Your task to perform on an android device: turn on bluetooth scan Image 0: 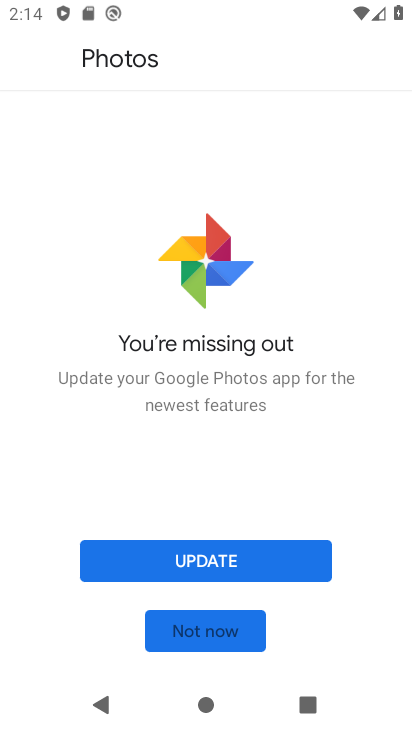
Step 0: press home button
Your task to perform on an android device: turn on bluetooth scan Image 1: 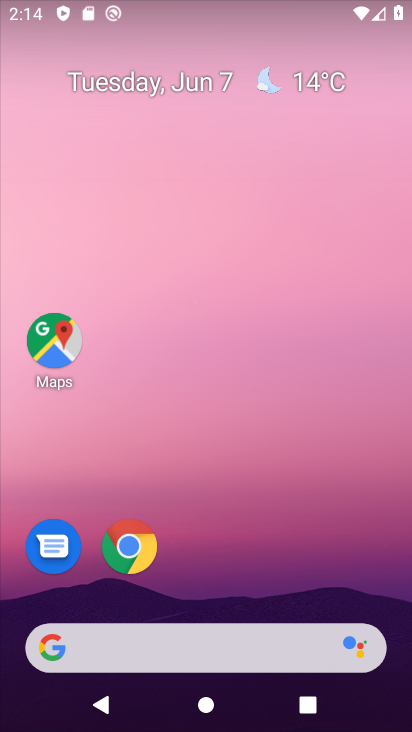
Step 1: drag from (157, 600) to (197, 0)
Your task to perform on an android device: turn on bluetooth scan Image 2: 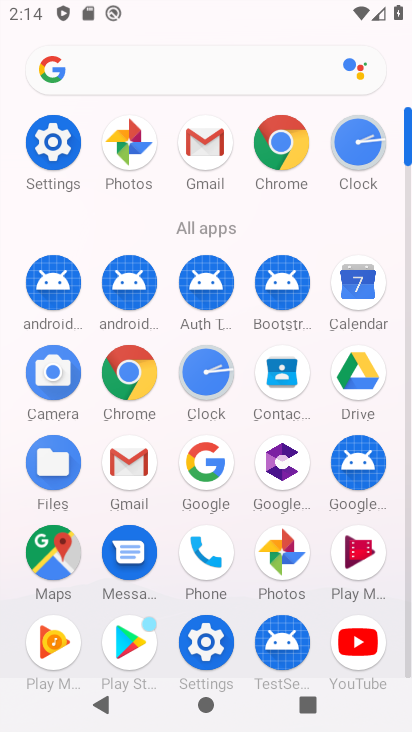
Step 2: click (55, 140)
Your task to perform on an android device: turn on bluetooth scan Image 3: 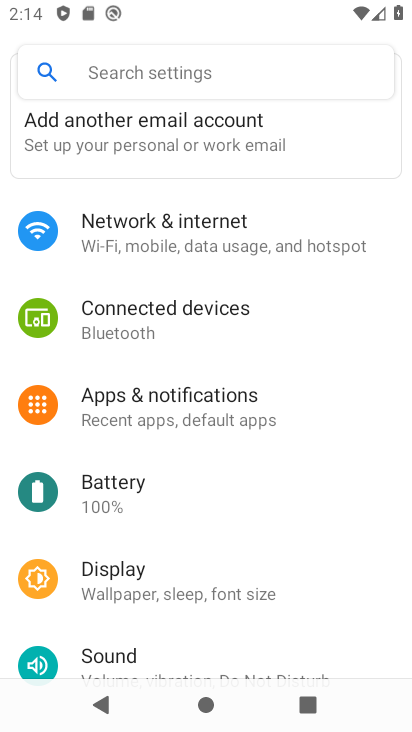
Step 3: drag from (171, 568) to (269, 74)
Your task to perform on an android device: turn on bluetooth scan Image 4: 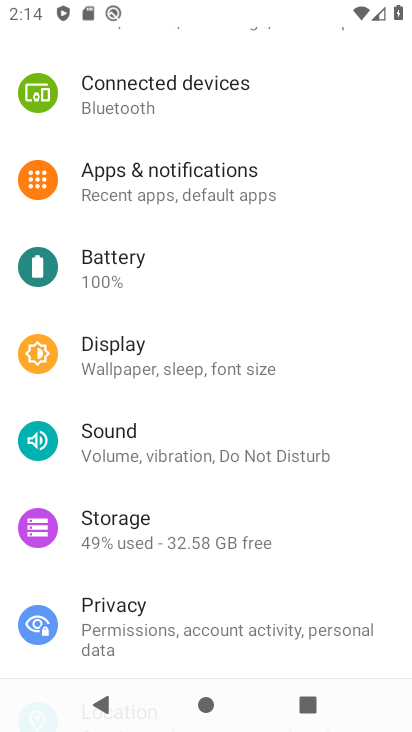
Step 4: drag from (93, 549) to (177, 210)
Your task to perform on an android device: turn on bluetooth scan Image 5: 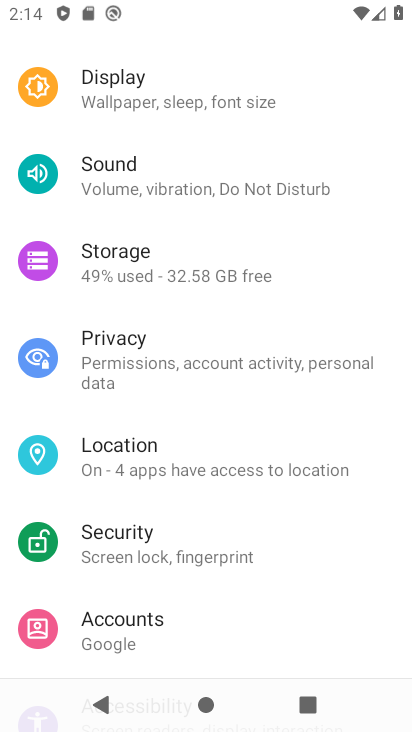
Step 5: click (151, 471)
Your task to perform on an android device: turn on bluetooth scan Image 6: 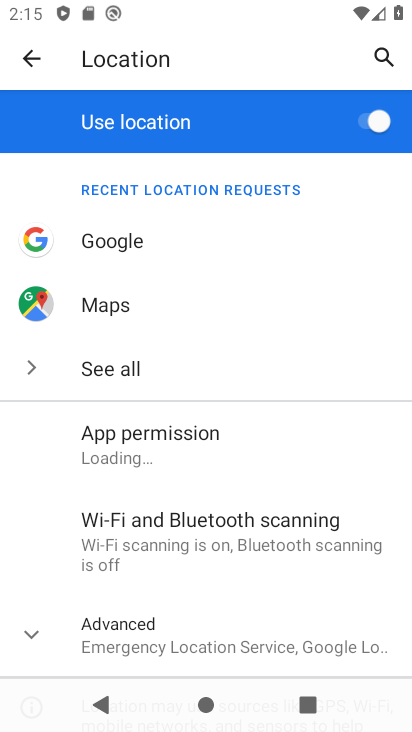
Step 6: click (191, 645)
Your task to perform on an android device: turn on bluetooth scan Image 7: 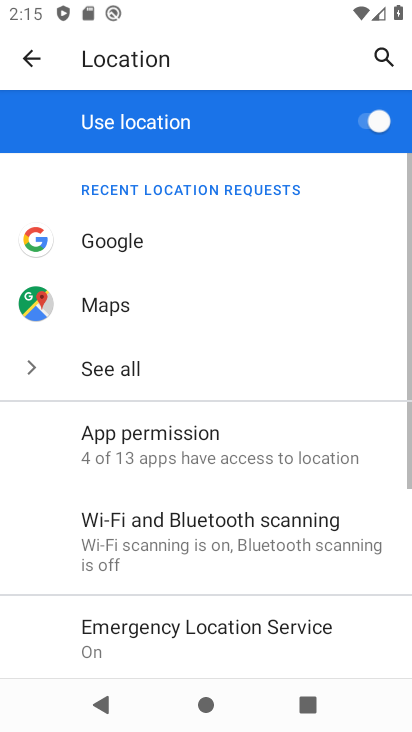
Step 7: drag from (221, 609) to (235, 276)
Your task to perform on an android device: turn on bluetooth scan Image 8: 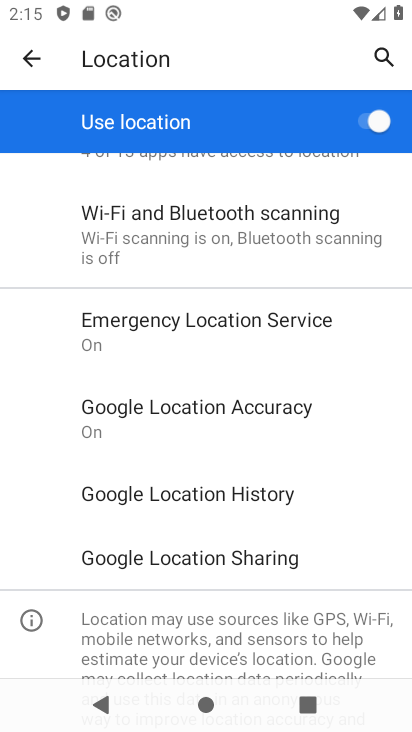
Step 8: drag from (191, 569) to (187, 363)
Your task to perform on an android device: turn on bluetooth scan Image 9: 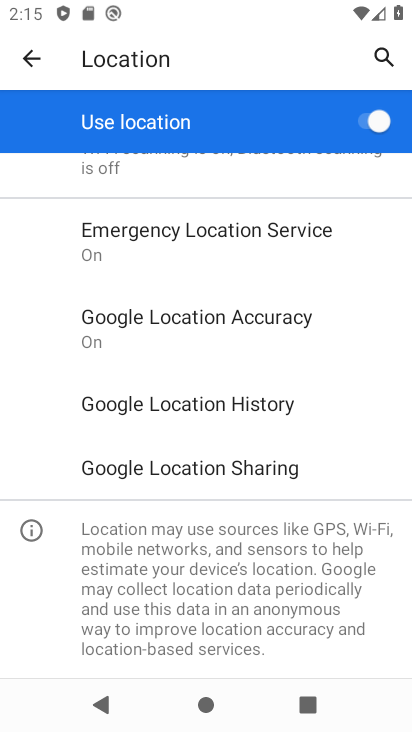
Step 9: drag from (187, 363) to (169, 722)
Your task to perform on an android device: turn on bluetooth scan Image 10: 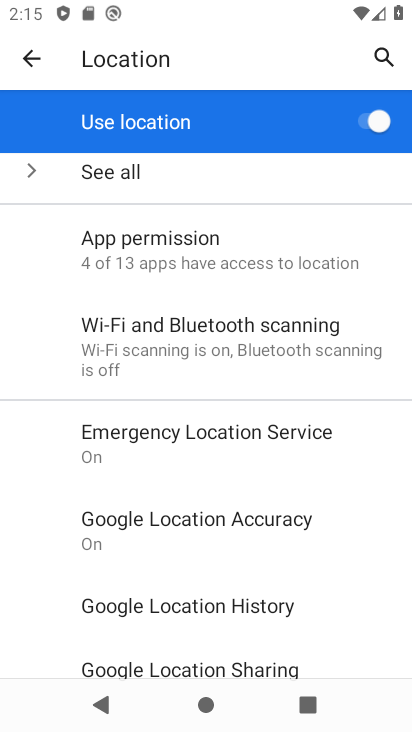
Step 10: click (234, 335)
Your task to perform on an android device: turn on bluetooth scan Image 11: 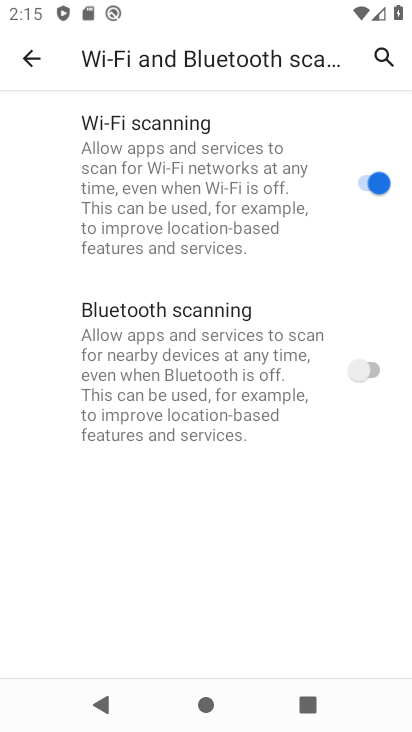
Step 11: click (369, 373)
Your task to perform on an android device: turn on bluetooth scan Image 12: 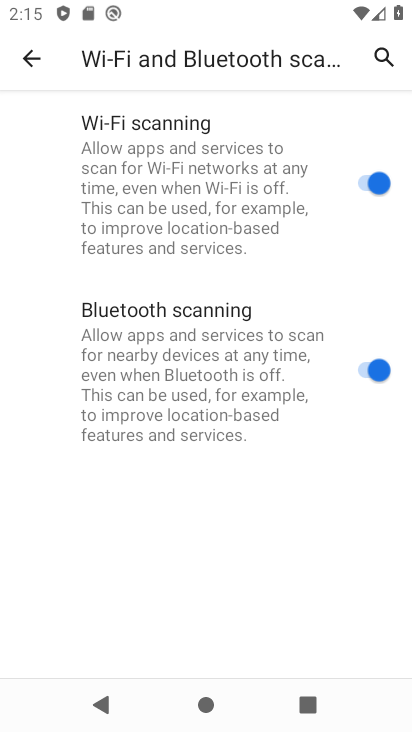
Step 12: task complete